Your task to perform on an android device: make emails show in primary in the gmail app Image 0: 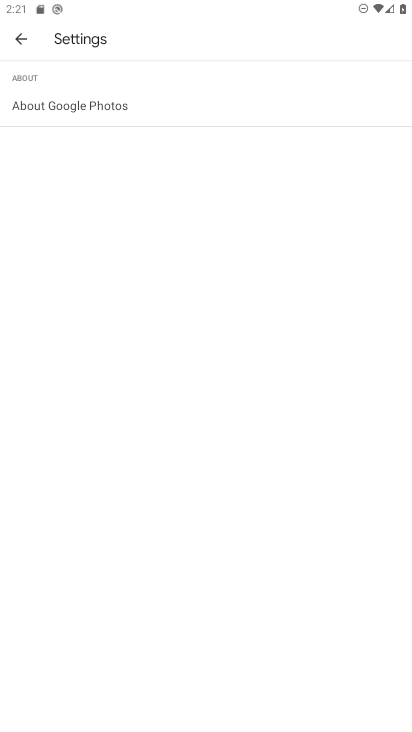
Step 0: press home button
Your task to perform on an android device: make emails show in primary in the gmail app Image 1: 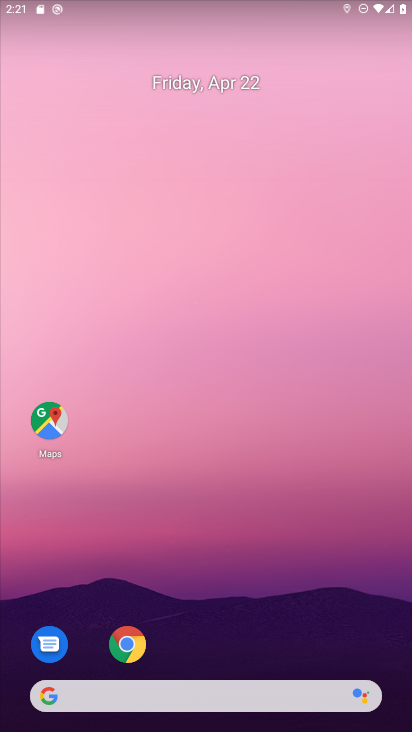
Step 1: drag from (241, 195) to (239, 62)
Your task to perform on an android device: make emails show in primary in the gmail app Image 2: 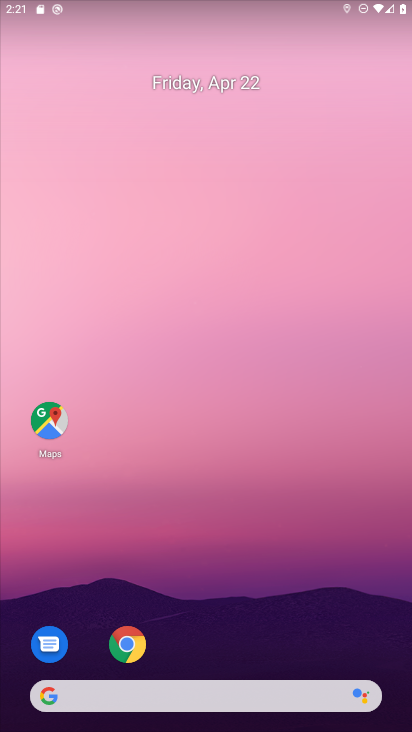
Step 2: drag from (257, 493) to (213, 31)
Your task to perform on an android device: make emails show in primary in the gmail app Image 3: 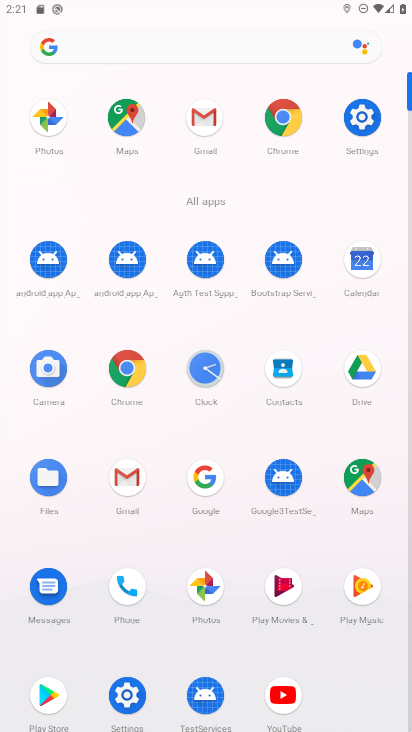
Step 3: click (201, 117)
Your task to perform on an android device: make emails show in primary in the gmail app Image 4: 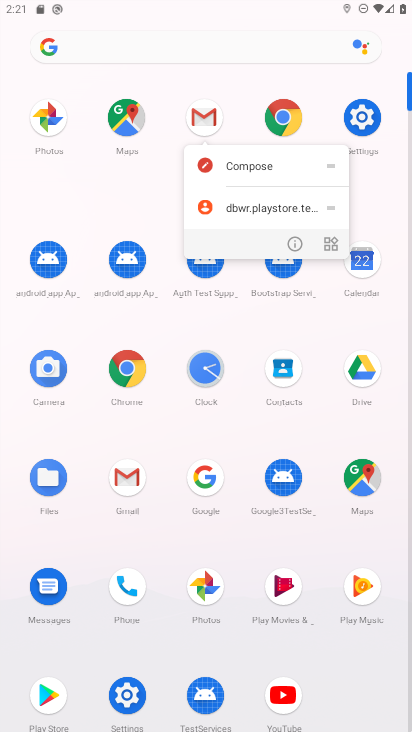
Step 4: click (201, 117)
Your task to perform on an android device: make emails show in primary in the gmail app Image 5: 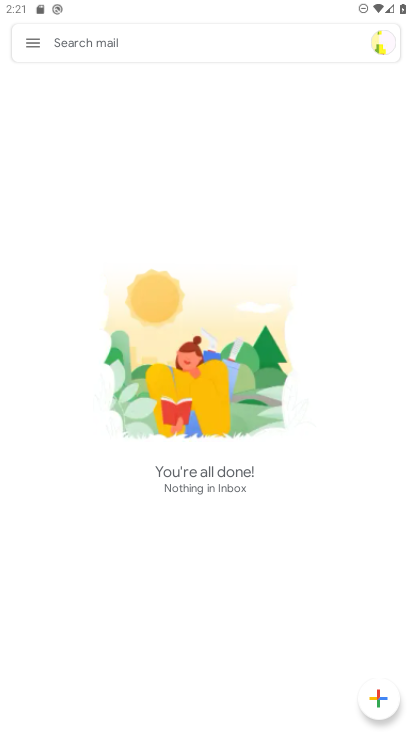
Step 5: click (30, 37)
Your task to perform on an android device: make emails show in primary in the gmail app Image 6: 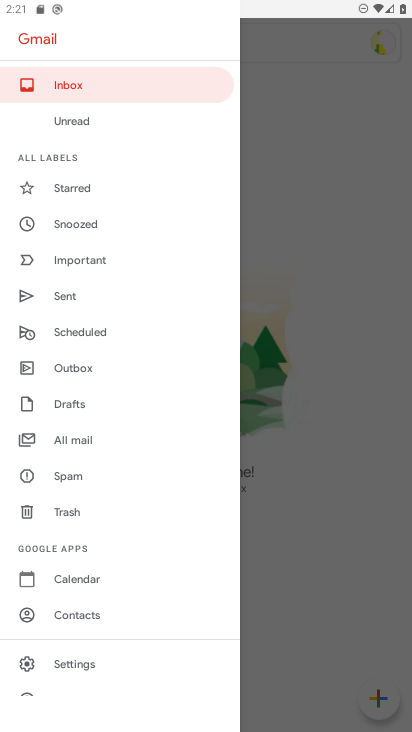
Step 6: drag from (77, 682) to (127, 373)
Your task to perform on an android device: make emails show in primary in the gmail app Image 7: 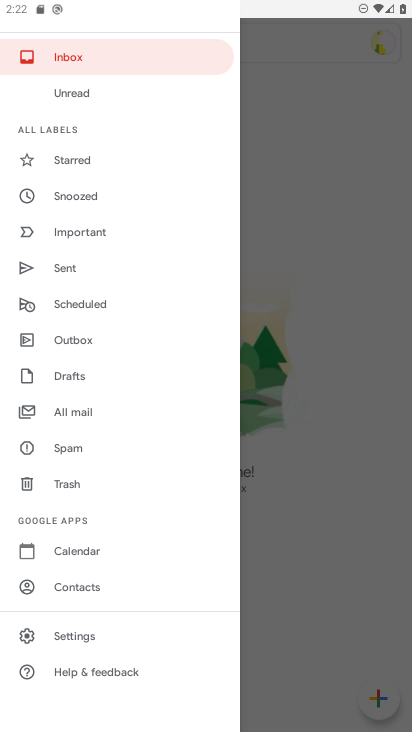
Step 7: click (87, 632)
Your task to perform on an android device: make emails show in primary in the gmail app Image 8: 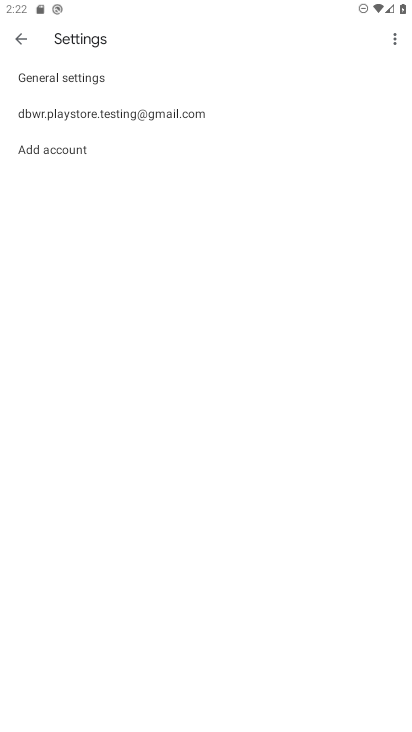
Step 8: click (133, 110)
Your task to perform on an android device: make emails show in primary in the gmail app Image 9: 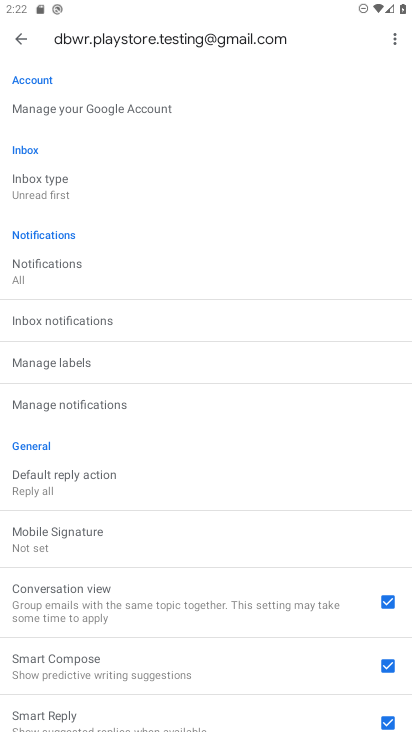
Step 9: click (54, 187)
Your task to perform on an android device: make emails show in primary in the gmail app Image 10: 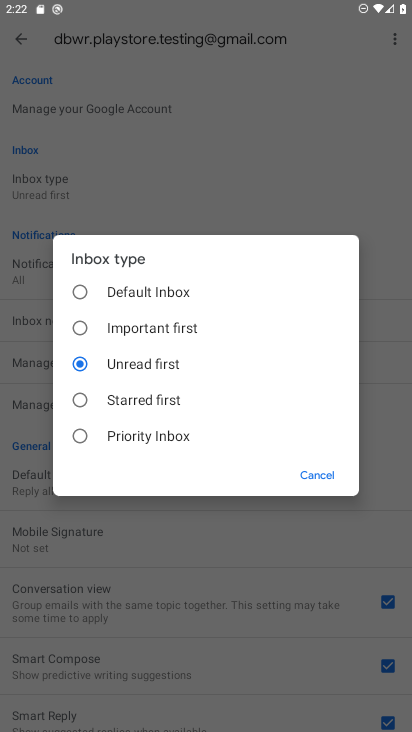
Step 10: click (159, 299)
Your task to perform on an android device: make emails show in primary in the gmail app Image 11: 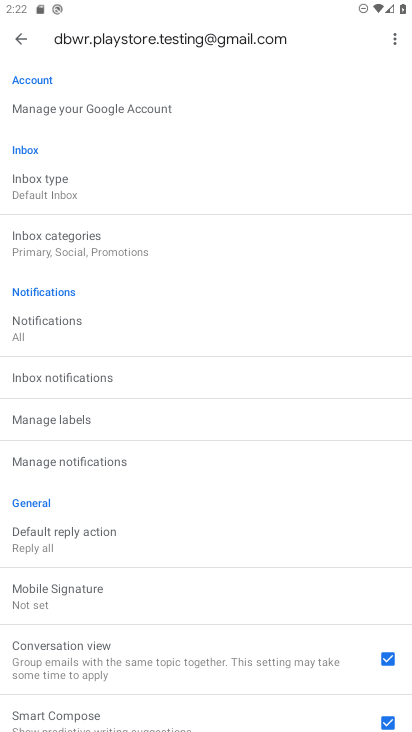
Step 11: click (104, 247)
Your task to perform on an android device: make emails show in primary in the gmail app Image 12: 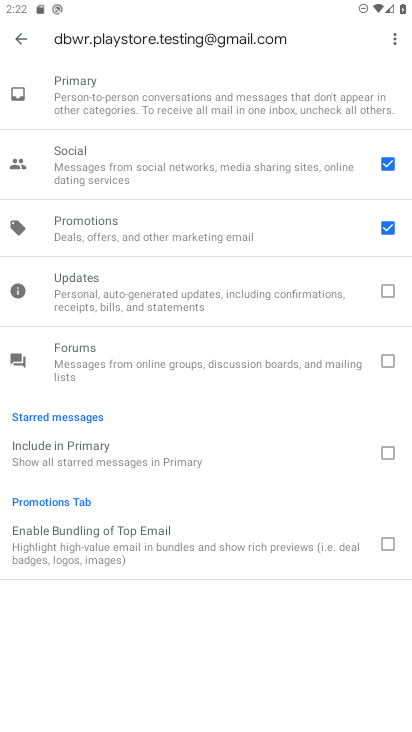
Step 12: task complete